Your task to perform on an android device: empty trash in the gmail app Image 0: 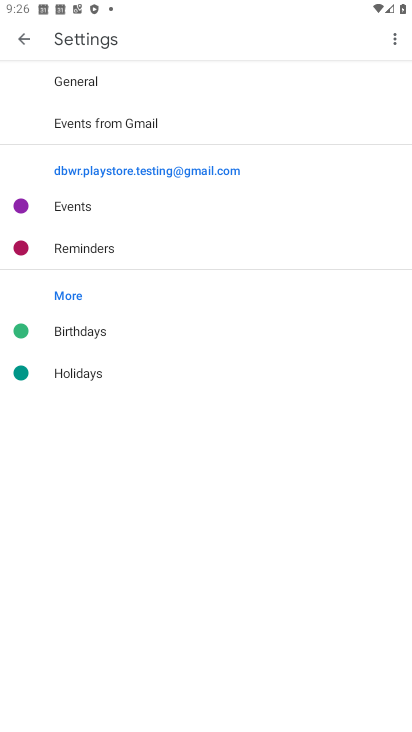
Step 0: press home button
Your task to perform on an android device: empty trash in the gmail app Image 1: 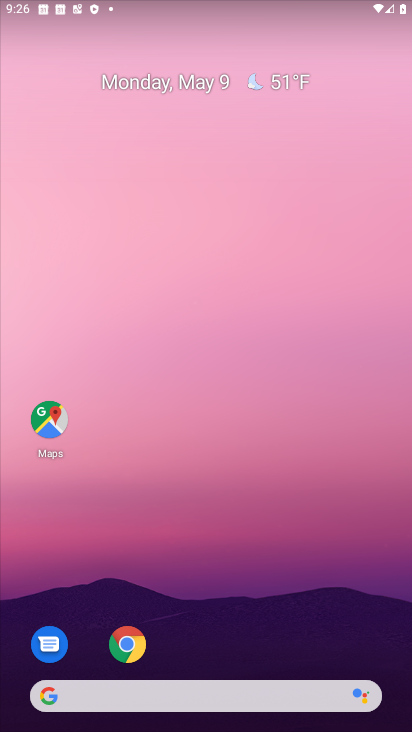
Step 1: drag from (253, 661) to (403, 555)
Your task to perform on an android device: empty trash in the gmail app Image 2: 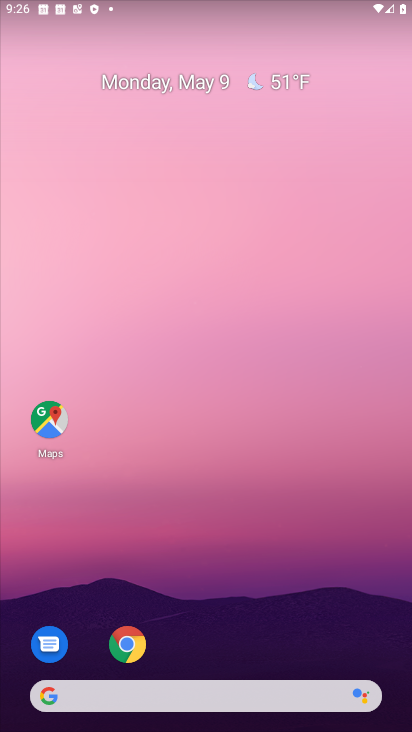
Step 2: drag from (190, 681) to (106, 12)
Your task to perform on an android device: empty trash in the gmail app Image 3: 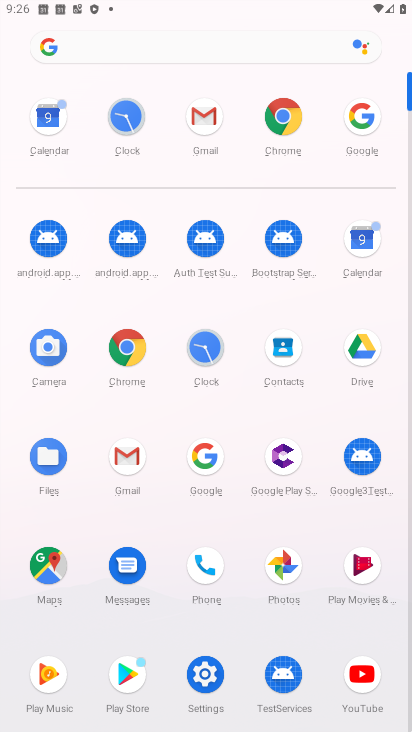
Step 3: click (122, 460)
Your task to perform on an android device: empty trash in the gmail app Image 4: 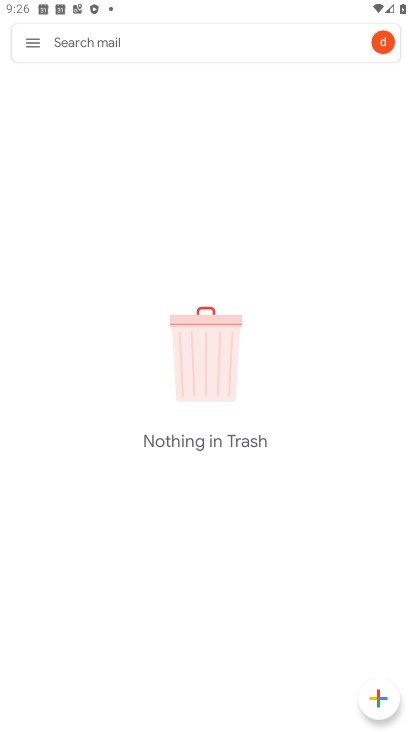
Step 4: task complete